Your task to perform on an android device: change notification settings in the gmail app Image 0: 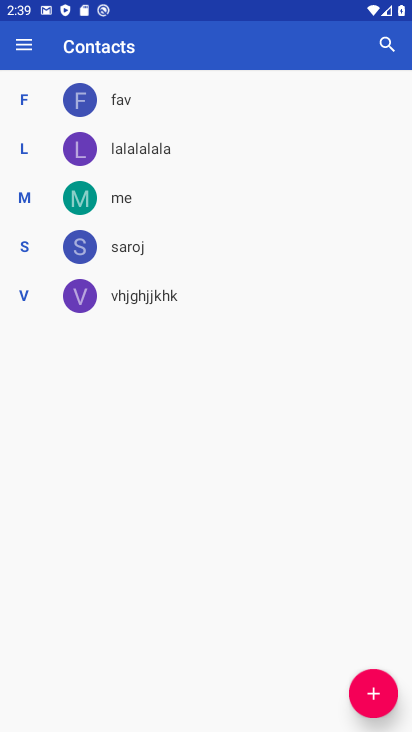
Step 0: press home button
Your task to perform on an android device: change notification settings in the gmail app Image 1: 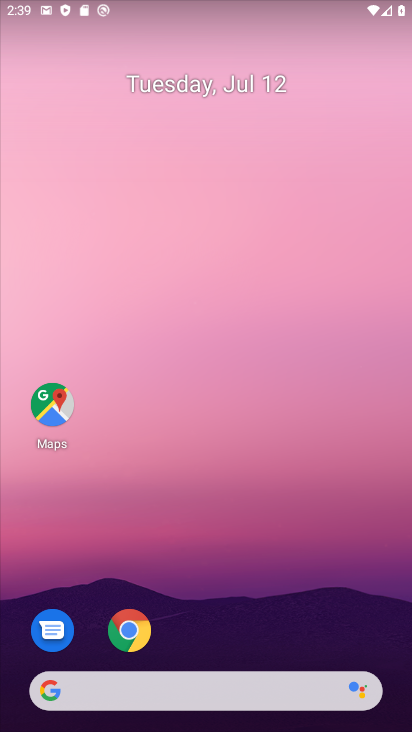
Step 1: drag from (303, 659) to (290, 39)
Your task to perform on an android device: change notification settings in the gmail app Image 2: 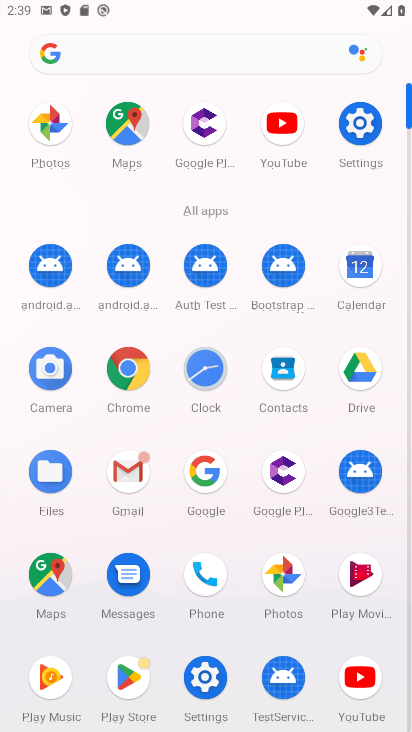
Step 2: click (146, 464)
Your task to perform on an android device: change notification settings in the gmail app Image 3: 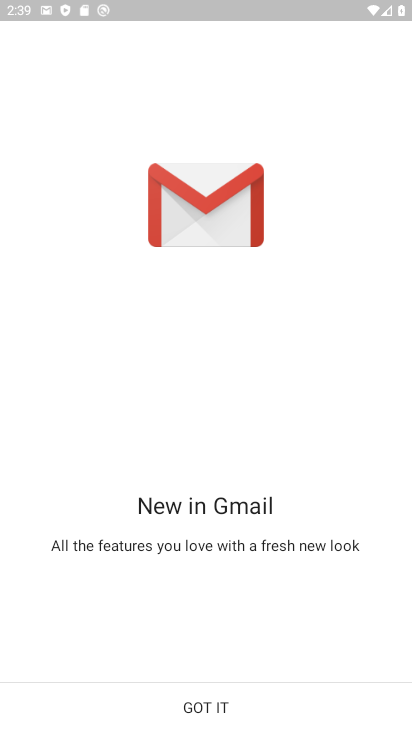
Step 3: click (177, 712)
Your task to perform on an android device: change notification settings in the gmail app Image 4: 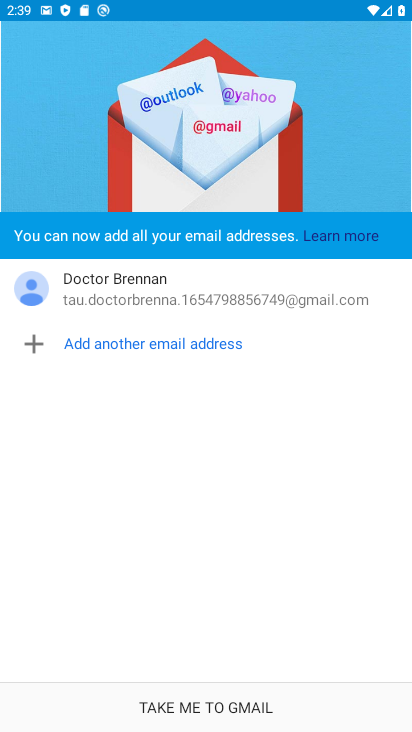
Step 4: click (176, 708)
Your task to perform on an android device: change notification settings in the gmail app Image 5: 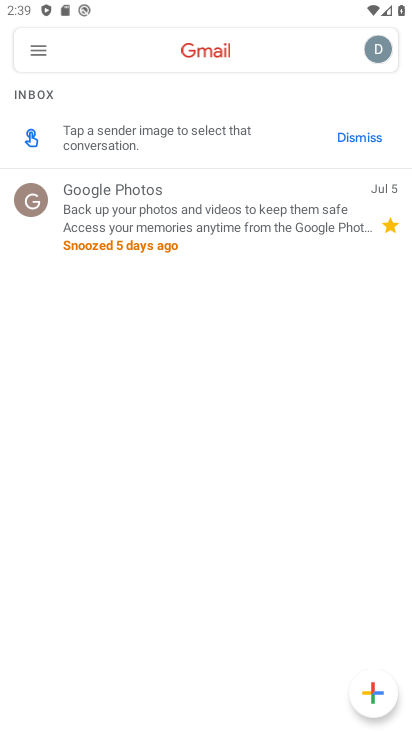
Step 5: click (33, 54)
Your task to perform on an android device: change notification settings in the gmail app Image 6: 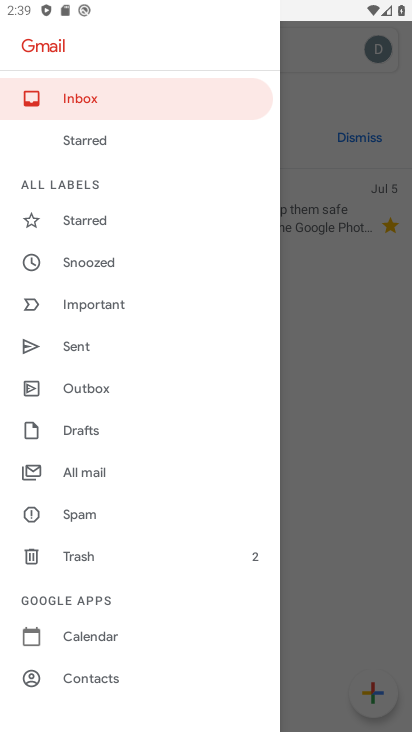
Step 6: drag from (106, 671) to (98, 270)
Your task to perform on an android device: change notification settings in the gmail app Image 7: 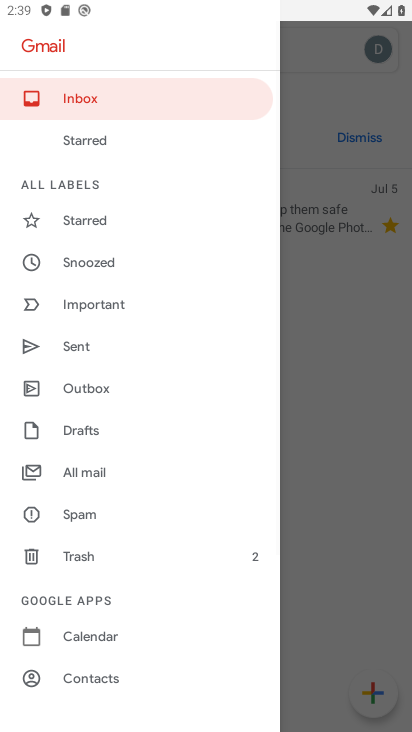
Step 7: drag from (133, 619) to (135, 170)
Your task to perform on an android device: change notification settings in the gmail app Image 8: 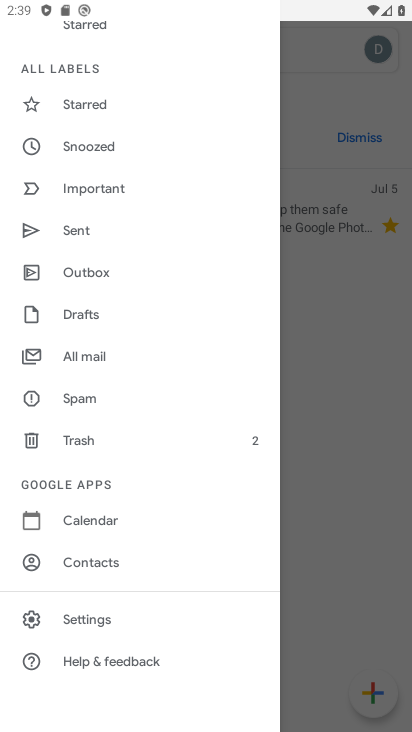
Step 8: click (88, 617)
Your task to perform on an android device: change notification settings in the gmail app Image 9: 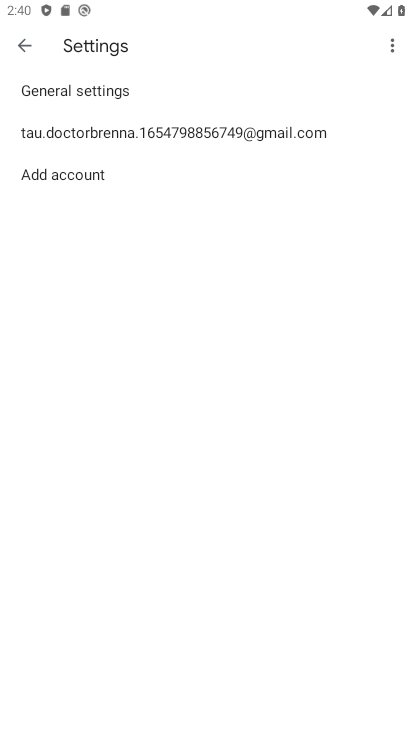
Step 9: click (164, 126)
Your task to perform on an android device: change notification settings in the gmail app Image 10: 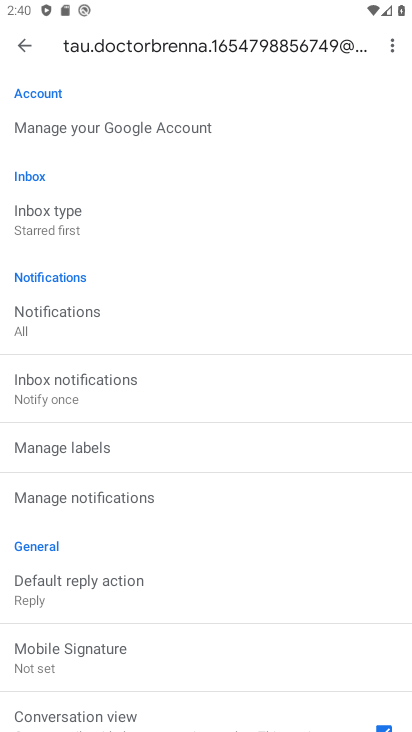
Step 10: click (52, 494)
Your task to perform on an android device: change notification settings in the gmail app Image 11: 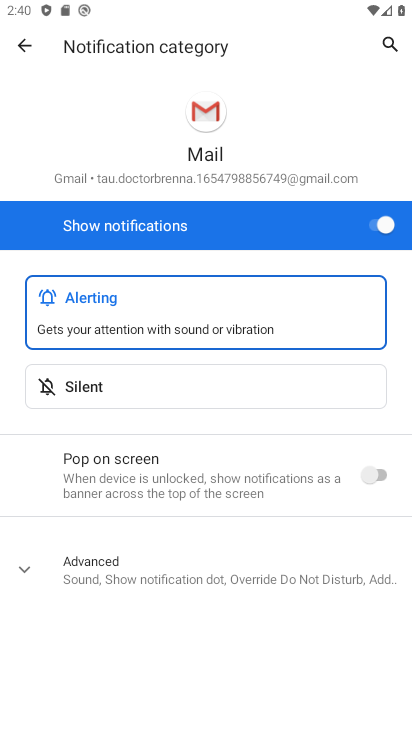
Step 11: click (374, 228)
Your task to perform on an android device: change notification settings in the gmail app Image 12: 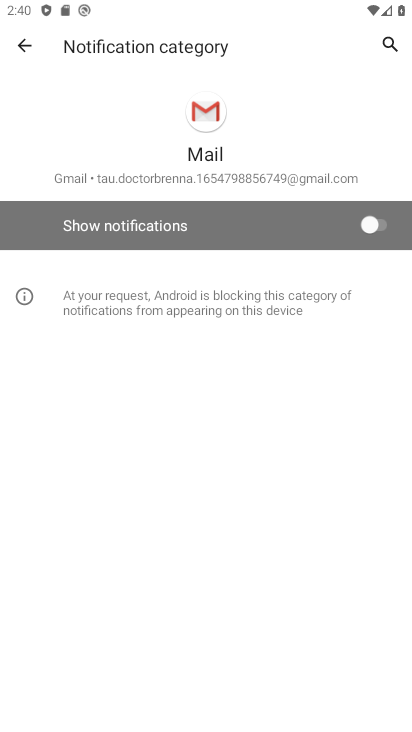
Step 12: task complete